Your task to perform on an android device: Show me popular games on the Play Store Image 0: 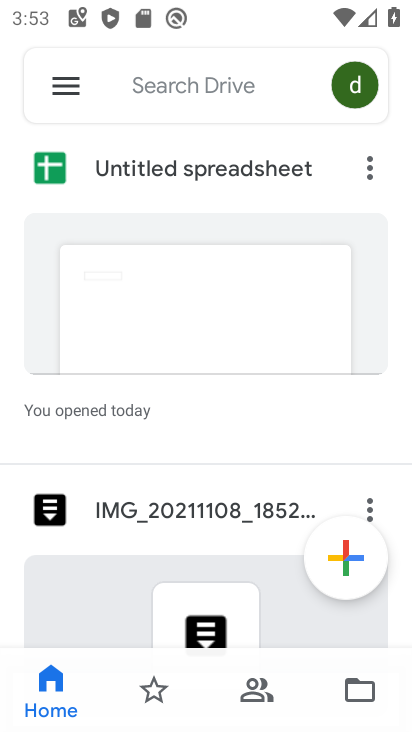
Step 0: press home button
Your task to perform on an android device: Show me popular games on the Play Store Image 1: 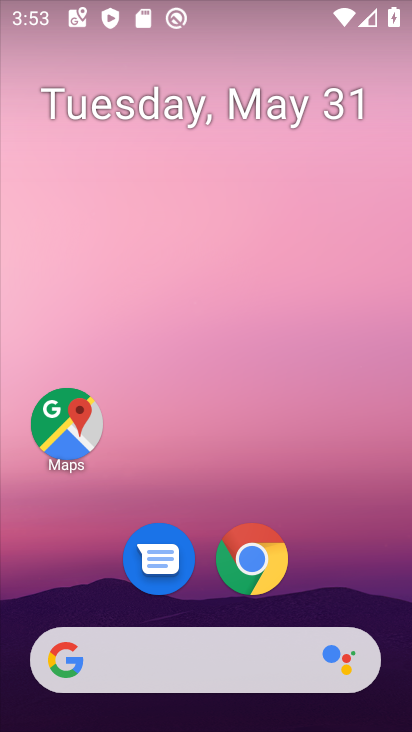
Step 1: drag from (236, 722) to (229, 81)
Your task to perform on an android device: Show me popular games on the Play Store Image 2: 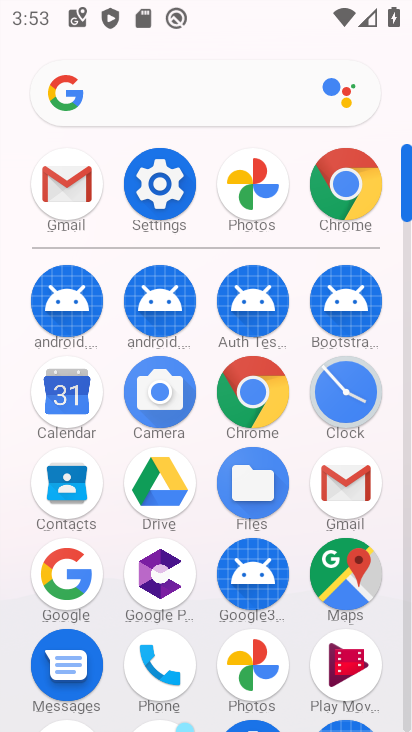
Step 2: drag from (210, 606) to (211, 273)
Your task to perform on an android device: Show me popular games on the Play Store Image 3: 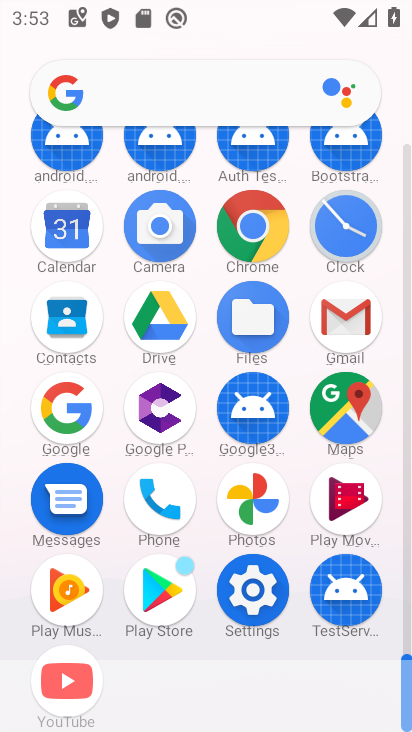
Step 3: click (167, 600)
Your task to perform on an android device: Show me popular games on the Play Store Image 4: 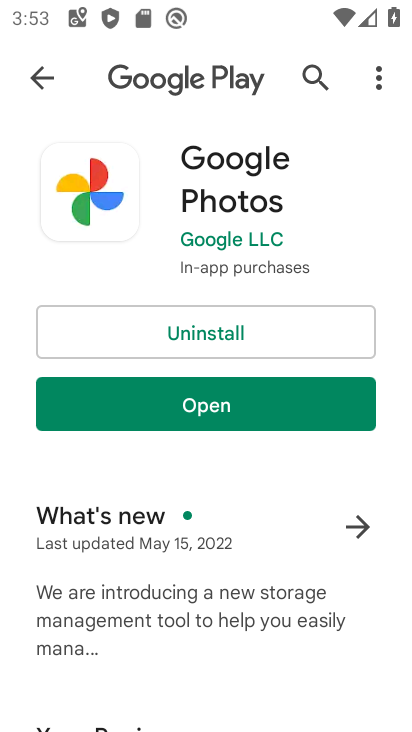
Step 4: click (44, 79)
Your task to perform on an android device: Show me popular games on the Play Store Image 5: 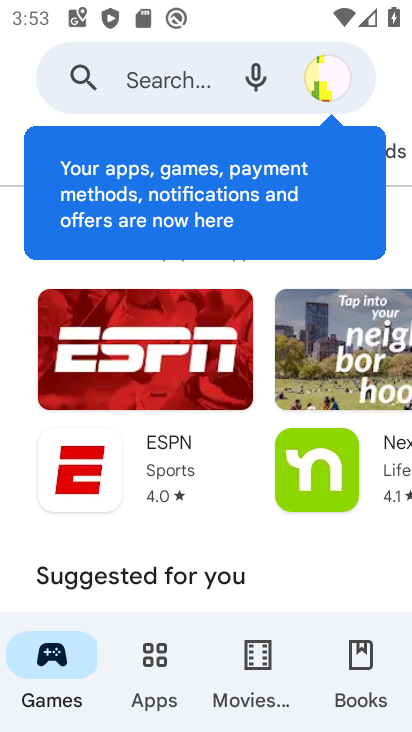
Step 5: drag from (271, 583) to (258, 229)
Your task to perform on an android device: Show me popular games on the Play Store Image 6: 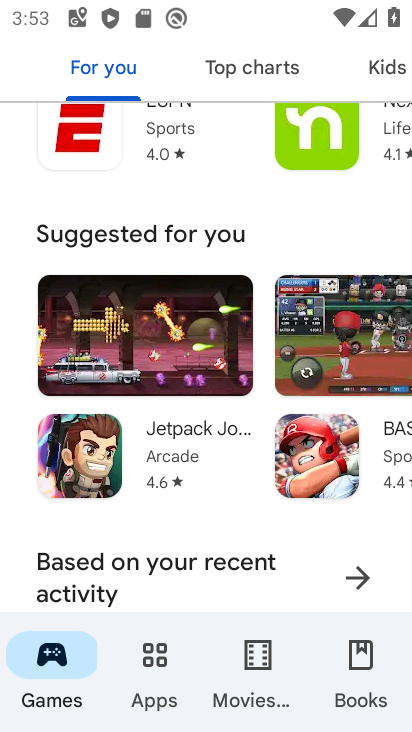
Step 6: drag from (219, 589) to (219, 188)
Your task to perform on an android device: Show me popular games on the Play Store Image 7: 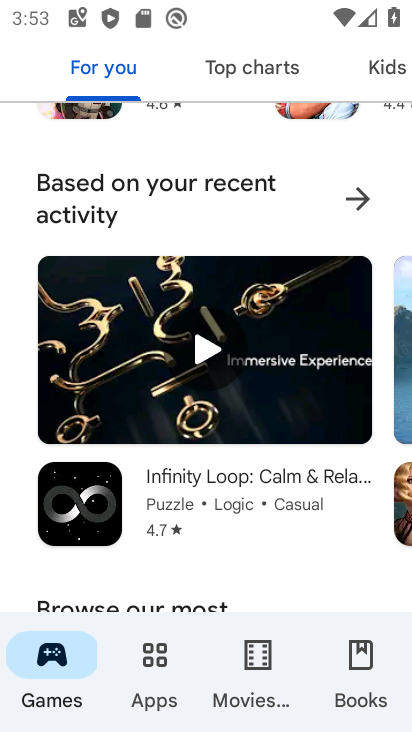
Step 7: drag from (241, 581) to (239, 270)
Your task to perform on an android device: Show me popular games on the Play Store Image 8: 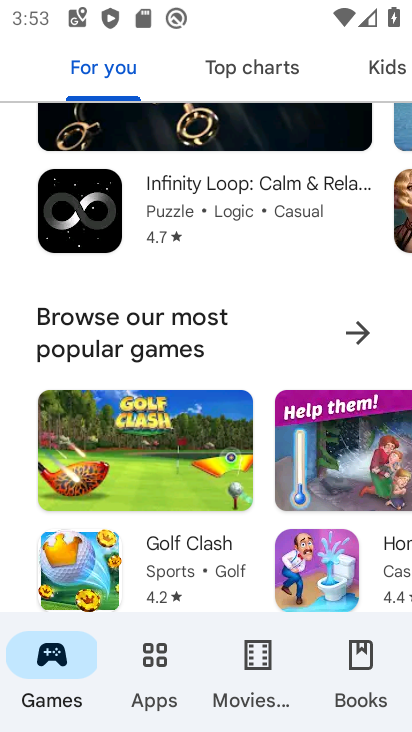
Step 8: click (170, 332)
Your task to perform on an android device: Show me popular games on the Play Store Image 9: 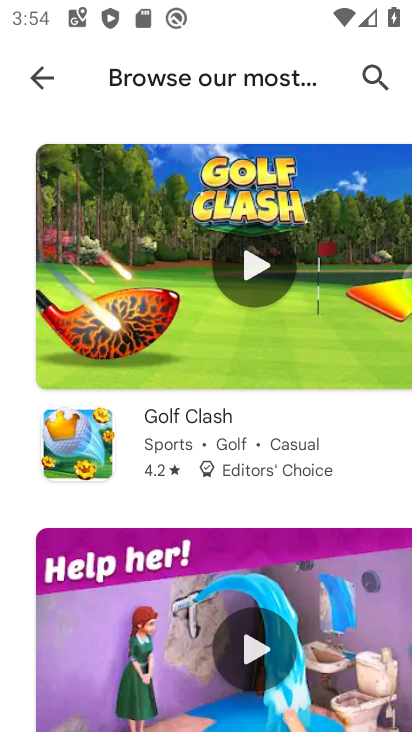
Step 9: task complete